Your task to perform on an android device: Open Youtube and go to "Your channel" Image 0: 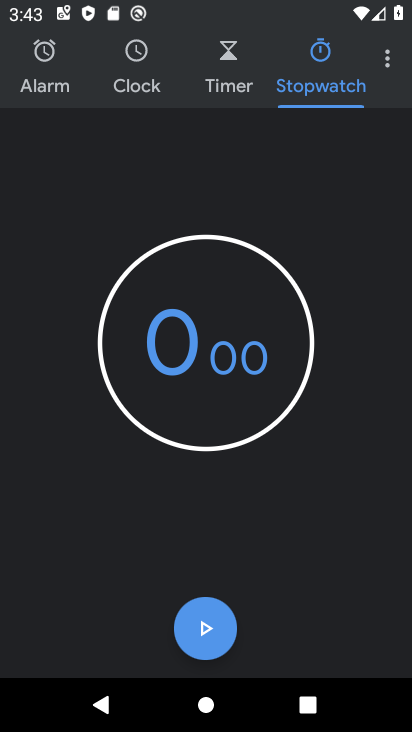
Step 0: press home button
Your task to perform on an android device: Open Youtube and go to "Your channel" Image 1: 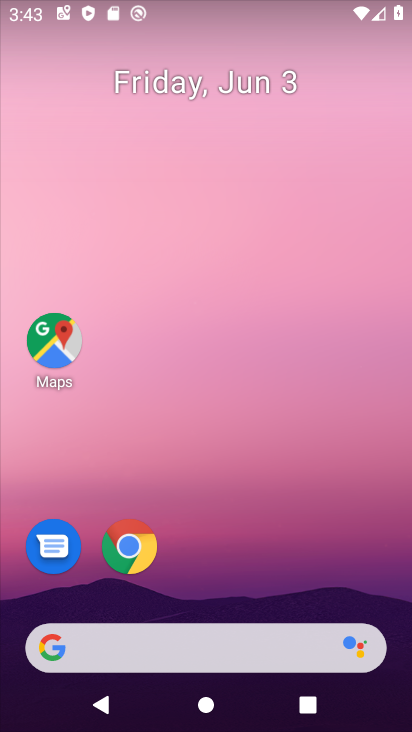
Step 1: drag from (253, 562) to (277, 12)
Your task to perform on an android device: Open Youtube and go to "Your channel" Image 2: 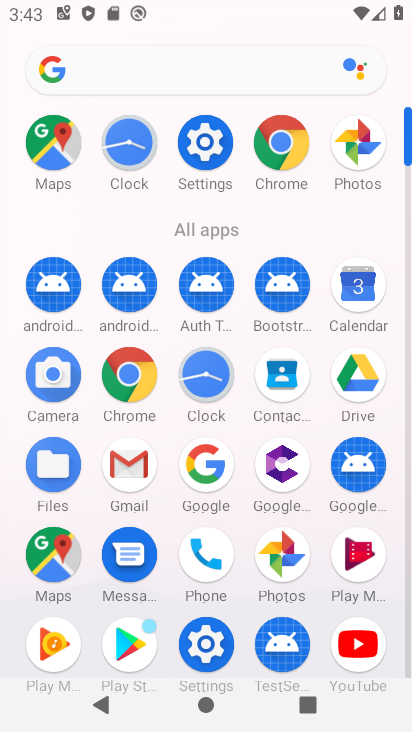
Step 2: click (359, 636)
Your task to perform on an android device: Open Youtube and go to "Your channel" Image 3: 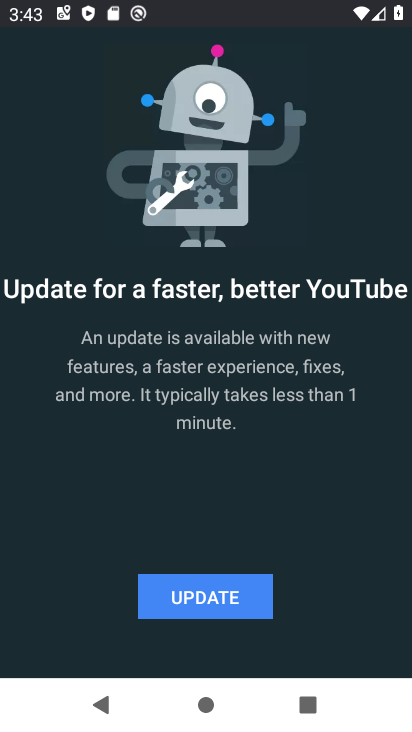
Step 3: click (246, 604)
Your task to perform on an android device: Open Youtube and go to "Your channel" Image 4: 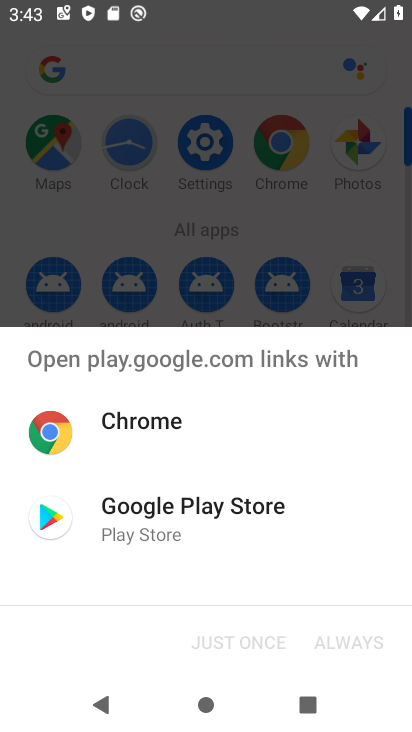
Step 4: click (165, 472)
Your task to perform on an android device: Open Youtube and go to "Your channel" Image 5: 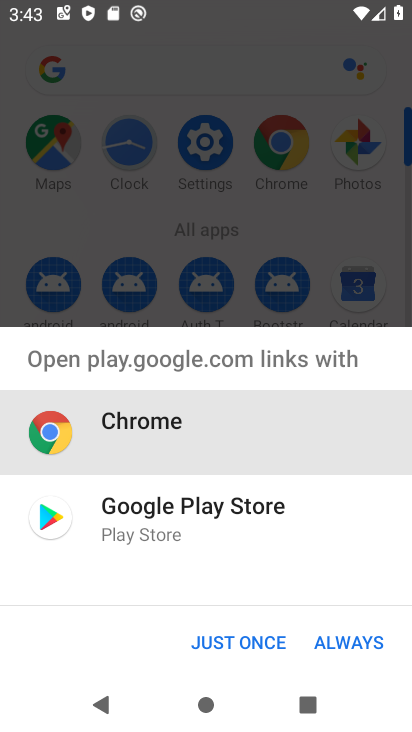
Step 5: click (160, 508)
Your task to perform on an android device: Open Youtube and go to "Your channel" Image 6: 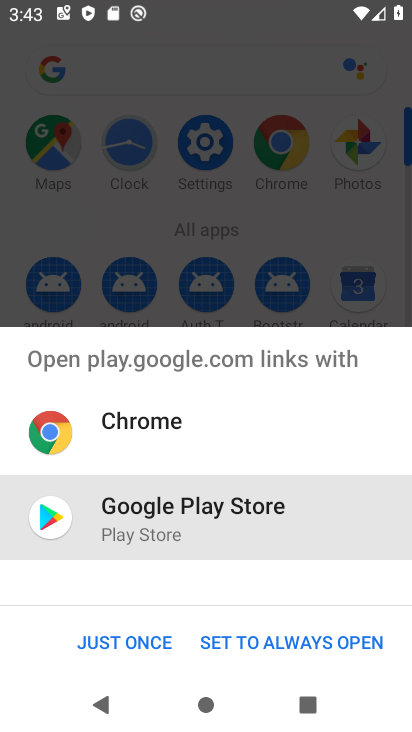
Step 6: click (134, 640)
Your task to perform on an android device: Open Youtube and go to "Your channel" Image 7: 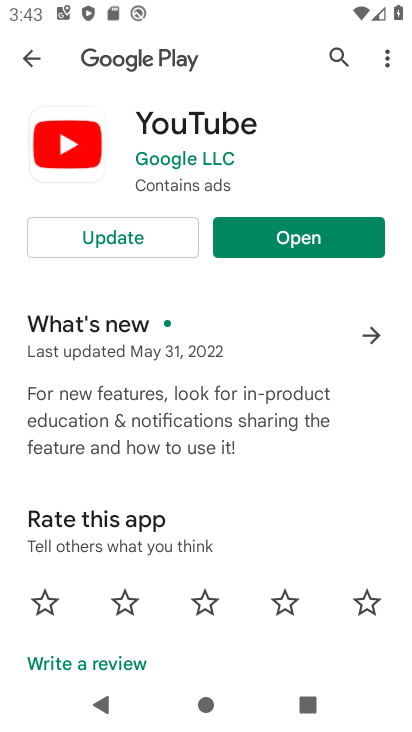
Step 7: click (134, 238)
Your task to perform on an android device: Open Youtube and go to "Your channel" Image 8: 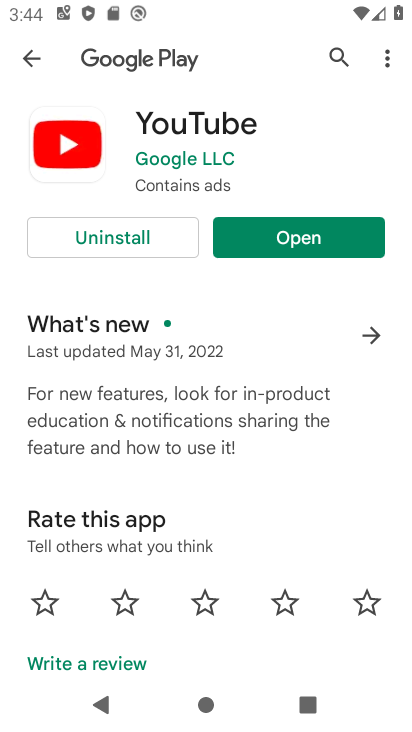
Step 8: click (317, 239)
Your task to perform on an android device: Open Youtube and go to "Your channel" Image 9: 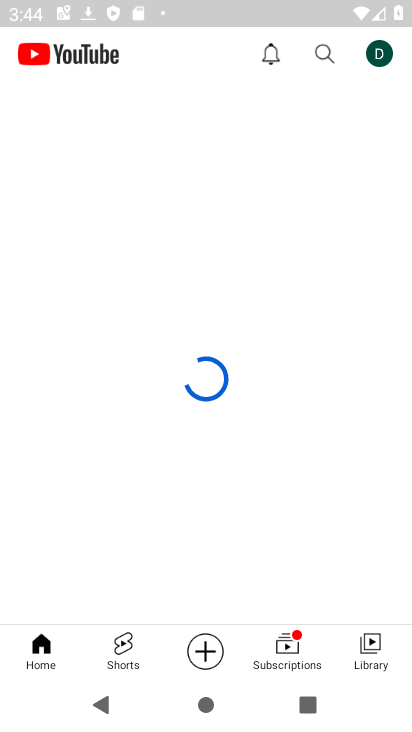
Step 9: click (378, 56)
Your task to perform on an android device: Open Youtube and go to "Your channel" Image 10: 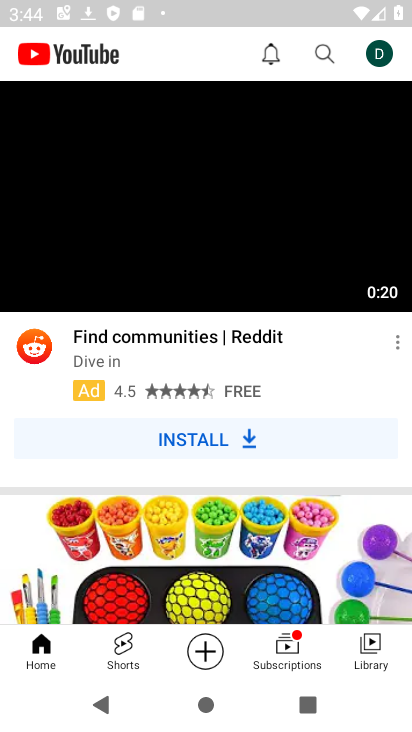
Step 10: click (376, 49)
Your task to perform on an android device: Open Youtube and go to "Your channel" Image 11: 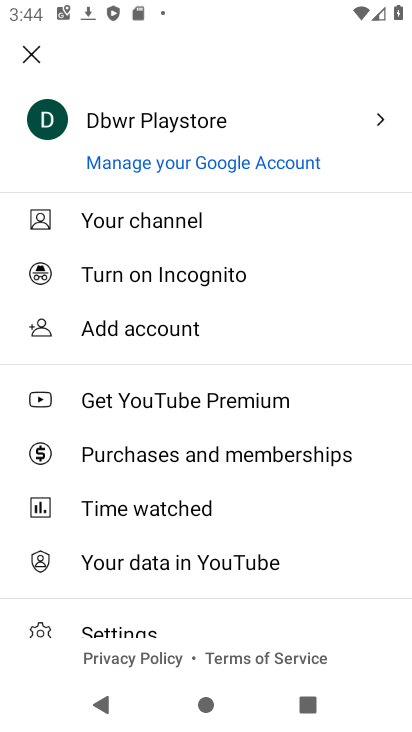
Step 11: click (208, 227)
Your task to perform on an android device: Open Youtube and go to "Your channel" Image 12: 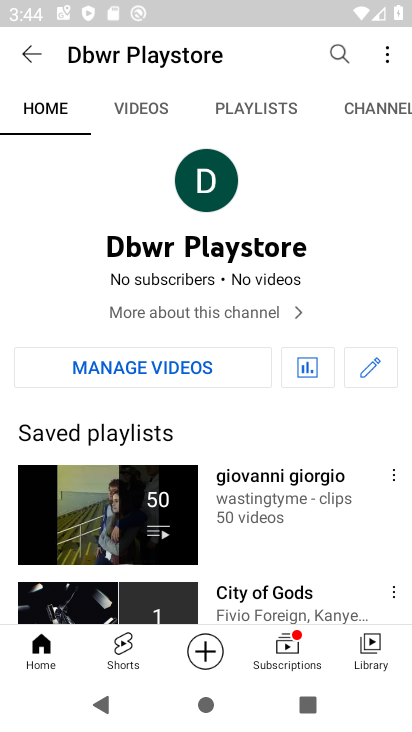
Step 12: task complete